Your task to perform on an android device: change text size in settings app Image 0: 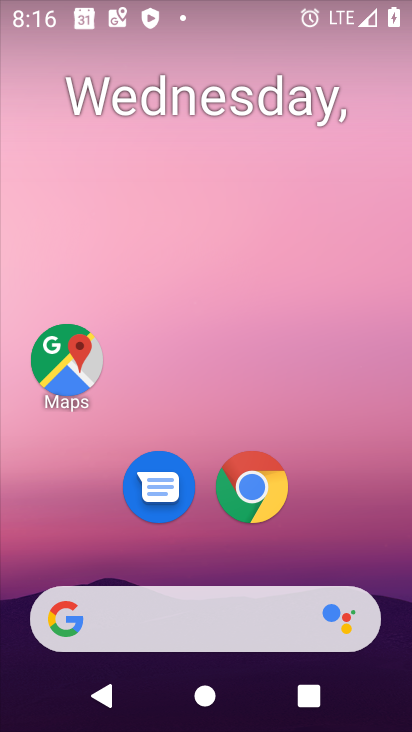
Step 0: drag from (367, 527) to (342, 6)
Your task to perform on an android device: change text size in settings app Image 1: 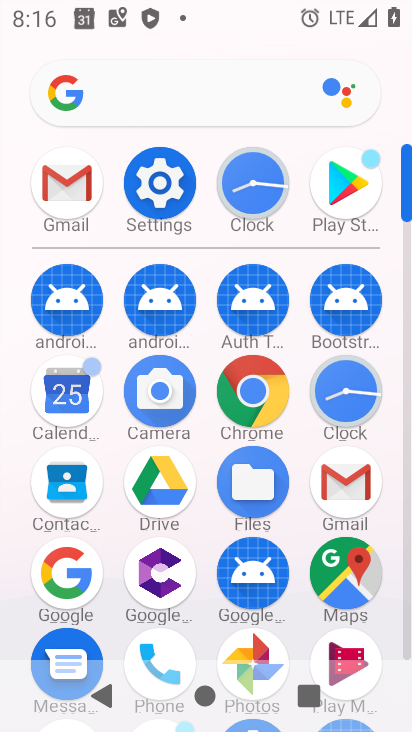
Step 1: click (159, 207)
Your task to perform on an android device: change text size in settings app Image 2: 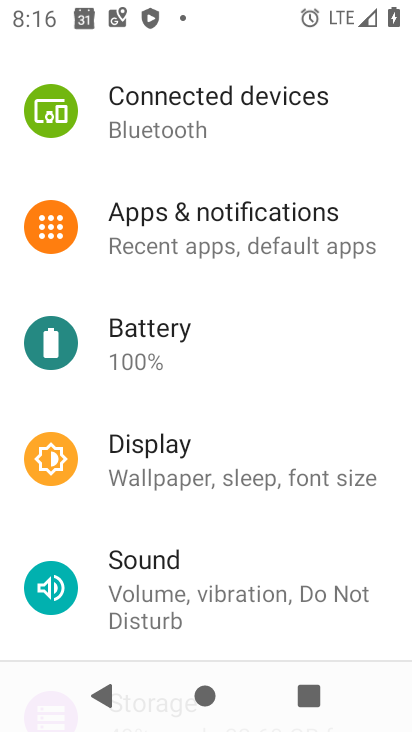
Step 2: click (165, 476)
Your task to perform on an android device: change text size in settings app Image 3: 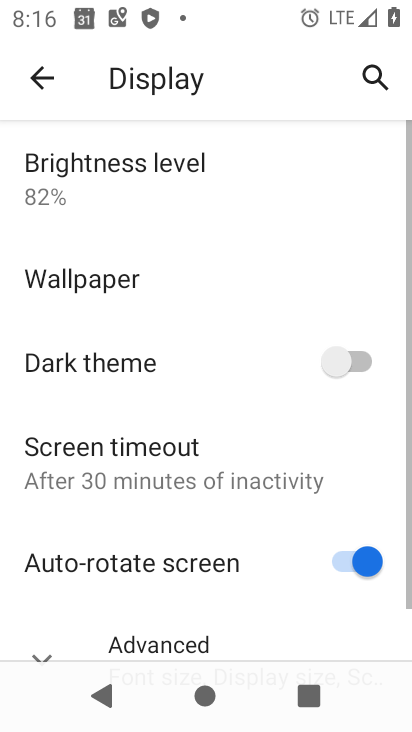
Step 3: drag from (176, 486) to (192, 188)
Your task to perform on an android device: change text size in settings app Image 4: 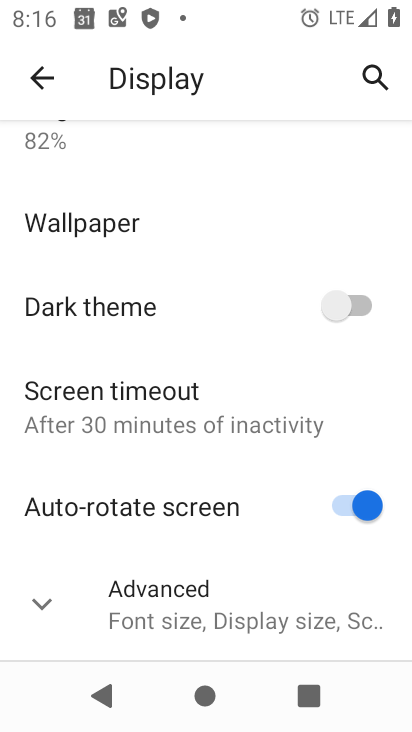
Step 4: click (35, 607)
Your task to perform on an android device: change text size in settings app Image 5: 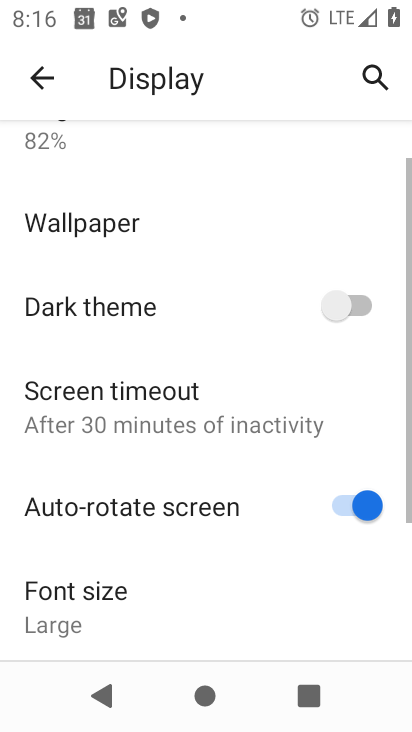
Step 5: drag from (146, 558) to (178, 372)
Your task to perform on an android device: change text size in settings app Image 6: 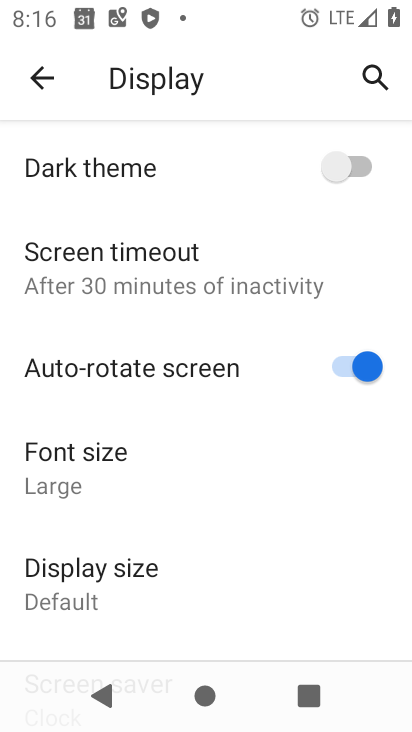
Step 6: click (58, 464)
Your task to perform on an android device: change text size in settings app Image 7: 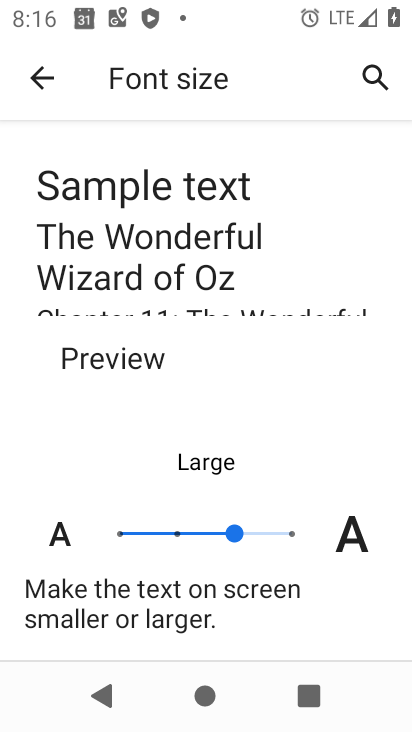
Step 7: click (168, 533)
Your task to perform on an android device: change text size in settings app Image 8: 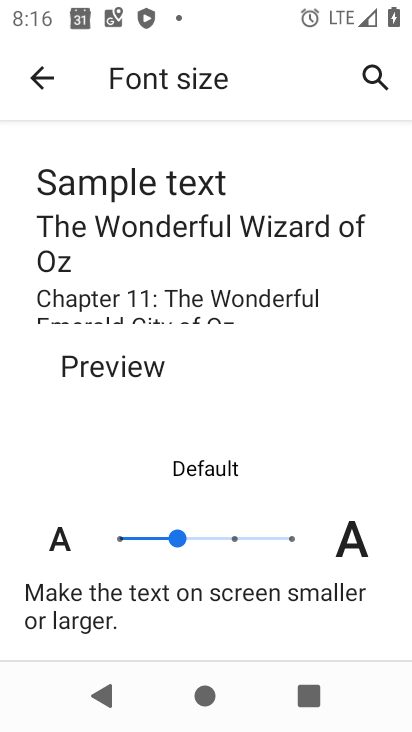
Step 8: task complete